Your task to perform on an android device: Go to Android settings Image 0: 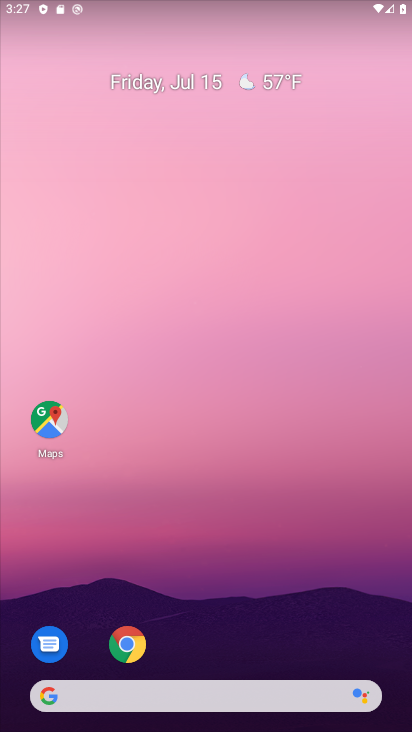
Step 0: drag from (339, 645) to (228, 20)
Your task to perform on an android device: Go to Android settings Image 1: 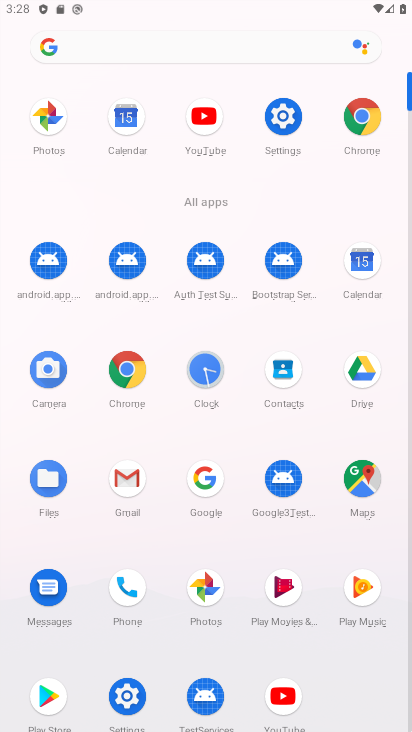
Step 1: click (283, 127)
Your task to perform on an android device: Go to Android settings Image 2: 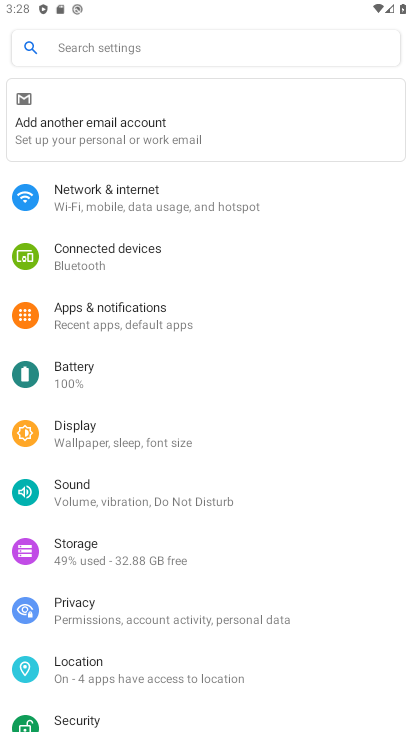
Step 2: task complete